Your task to perform on an android device: set default search engine in the chrome app Image 0: 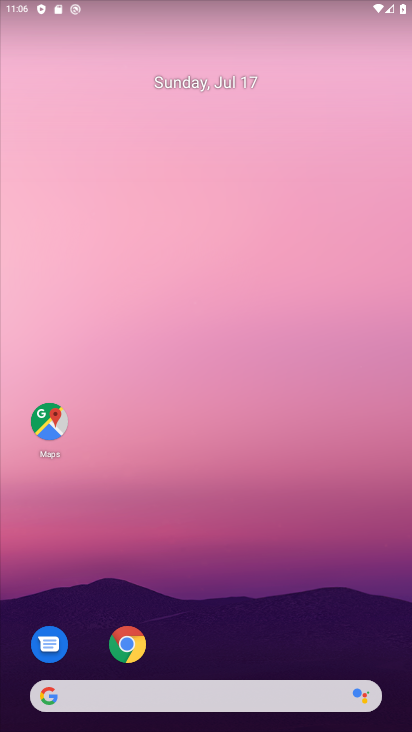
Step 0: drag from (286, 636) to (308, 182)
Your task to perform on an android device: set default search engine in the chrome app Image 1: 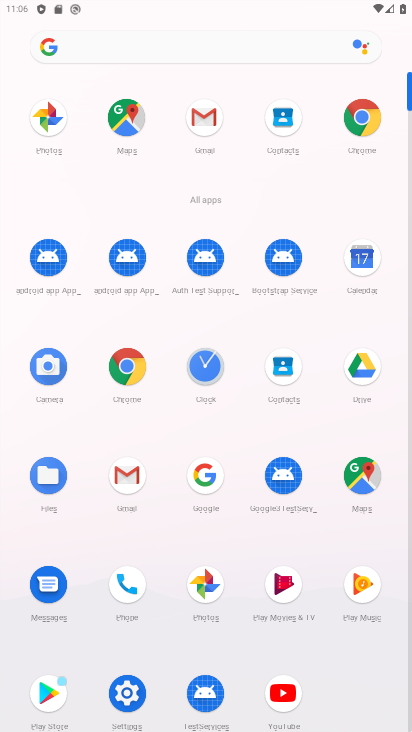
Step 1: click (122, 370)
Your task to perform on an android device: set default search engine in the chrome app Image 2: 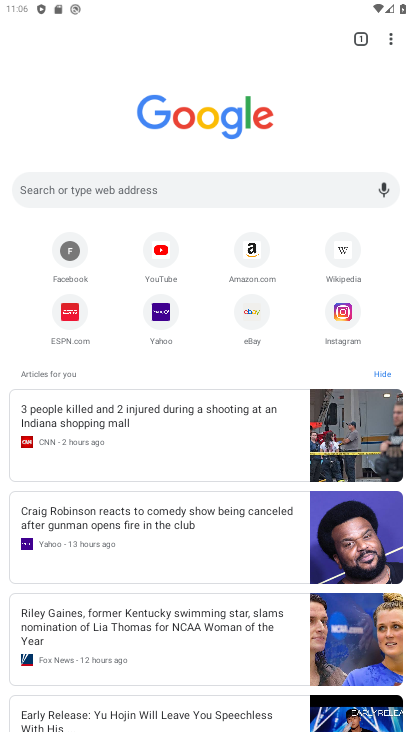
Step 2: drag from (390, 31) to (256, 333)
Your task to perform on an android device: set default search engine in the chrome app Image 3: 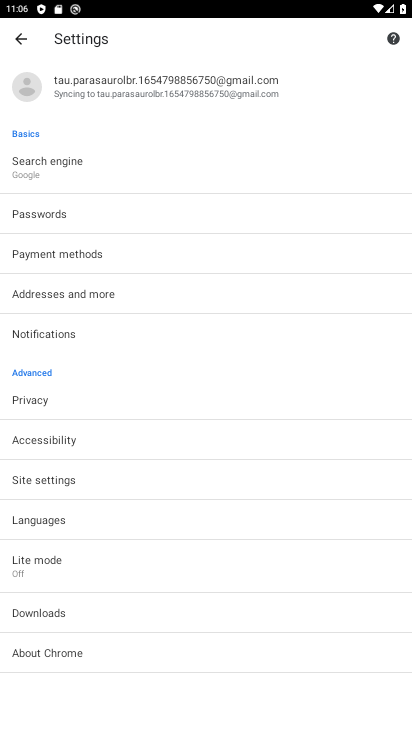
Step 3: click (61, 165)
Your task to perform on an android device: set default search engine in the chrome app Image 4: 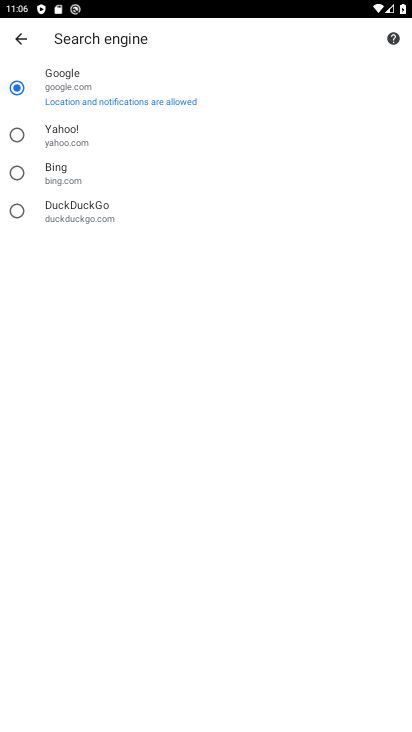
Step 4: task complete